Your task to perform on an android device: Is it going to rain this weekend? Image 0: 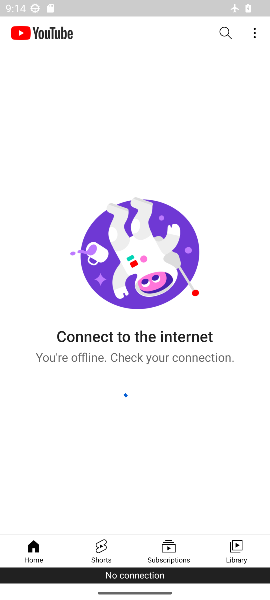
Step 0: press home button
Your task to perform on an android device: Is it going to rain this weekend? Image 1: 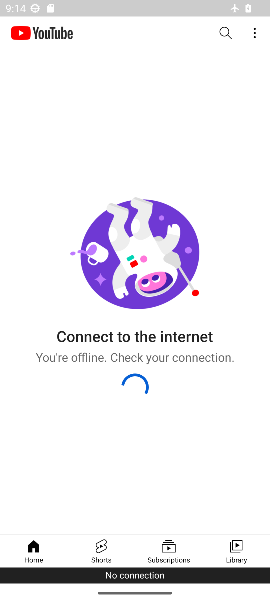
Step 1: press home button
Your task to perform on an android device: Is it going to rain this weekend? Image 2: 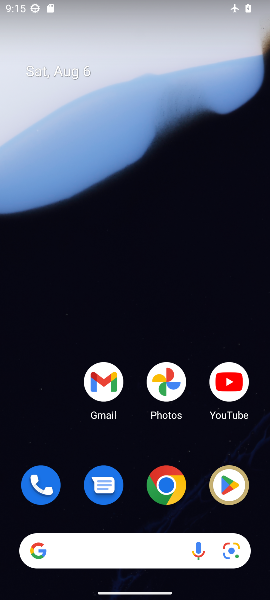
Step 2: drag from (143, 441) to (139, 58)
Your task to perform on an android device: Is it going to rain this weekend? Image 3: 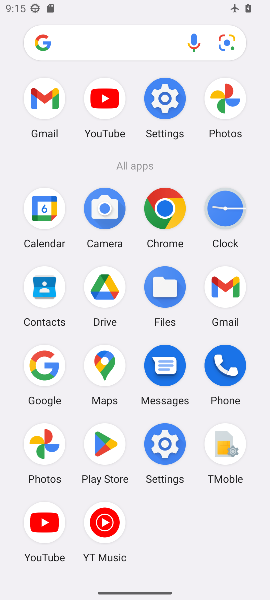
Step 3: click (36, 212)
Your task to perform on an android device: Is it going to rain this weekend? Image 4: 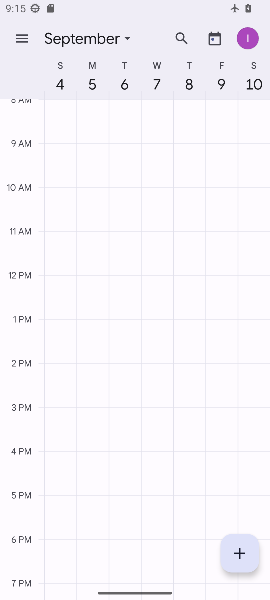
Step 4: click (110, 37)
Your task to perform on an android device: Is it going to rain this weekend? Image 5: 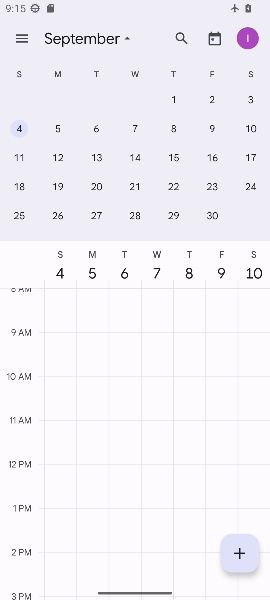
Step 5: drag from (58, 145) to (264, 174)
Your task to perform on an android device: Is it going to rain this weekend? Image 6: 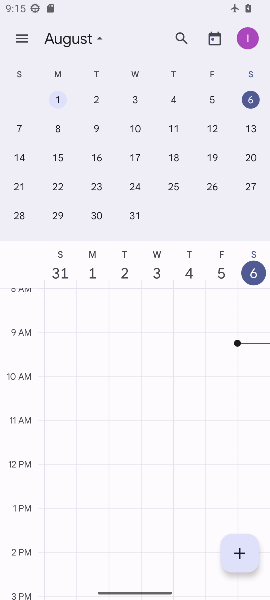
Step 6: click (255, 278)
Your task to perform on an android device: Is it going to rain this weekend? Image 7: 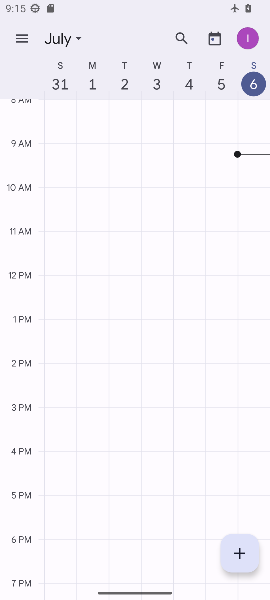
Step 7: click (252, 89)
Your task to perform on an android device: Is it going to rain this weekend? Image 8: 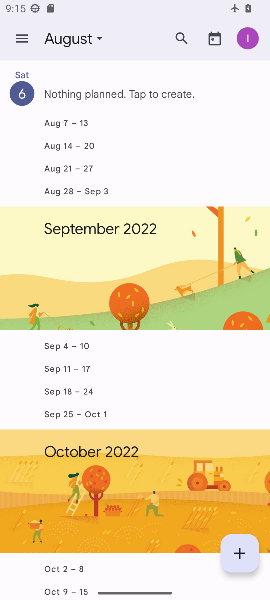
Step 8: task complete